Your task to perform on an android device: search for starred emails in the gmail app Image 0: 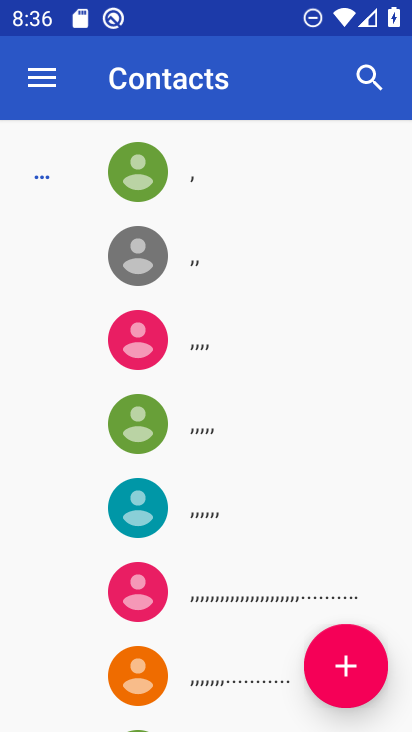
Step 0: press home button
Your task to perform on an android device: search for starred emails in the gmail app Image 1: 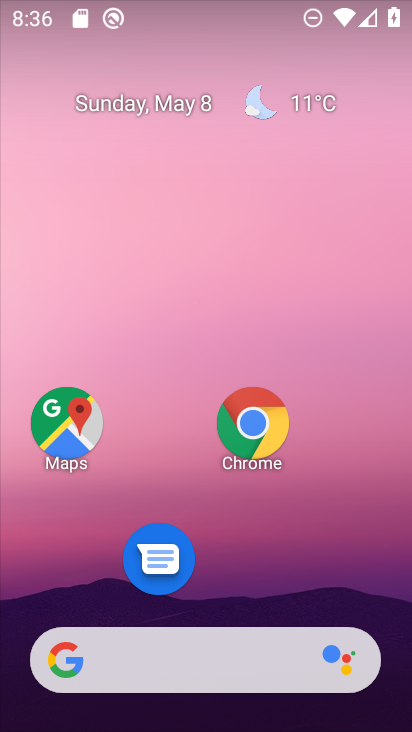
Step 1: drag from (360, 590) to (343, 6)
Your task to perform on an android device: search for starred emails in the gmail app Image 2: 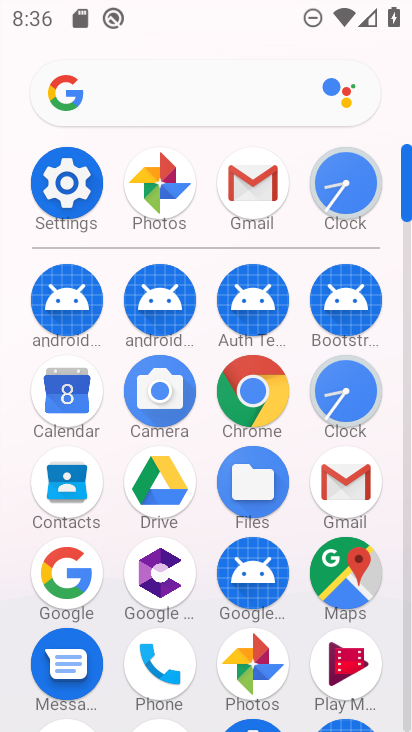
Step 2: click (247, 189)
Your task to perform on an android device: search for starred emails in the gmail app Image 3: 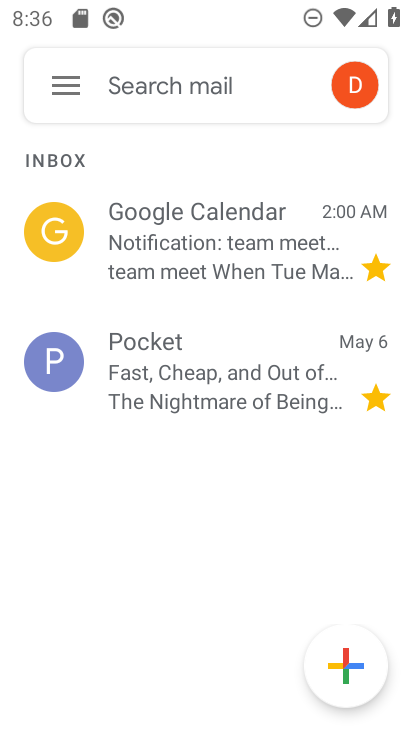
Step 3: click (52, 89)
Your task to perform on an android device: search for starred emails in the gmail app Image 4: 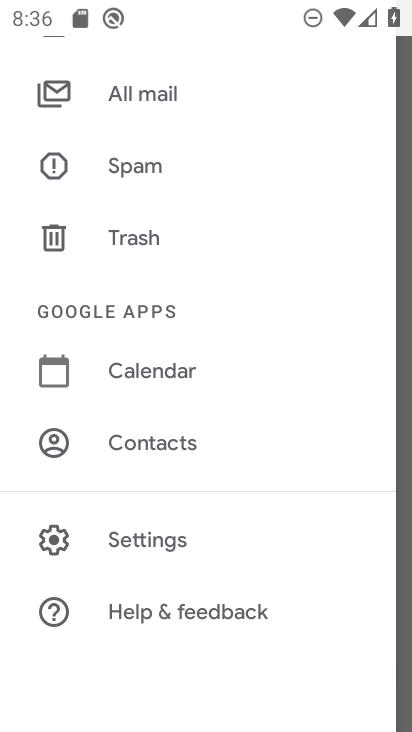
Step 4: drag from (165, 198) to (235, 608)
Your task to perform on an android device: search for starred emails in the gmail app Image 5: 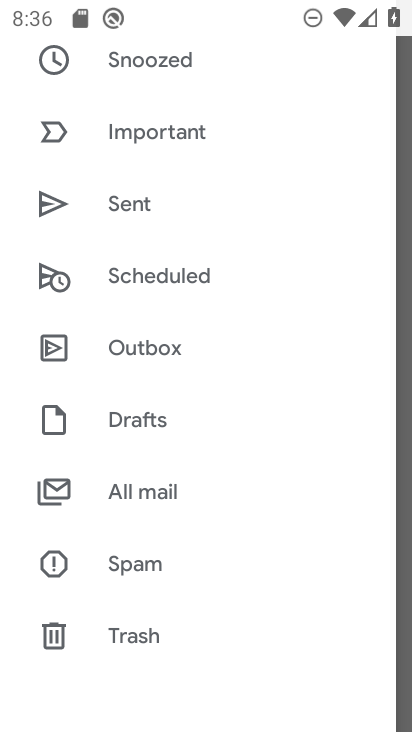
Step 5: drag from (267, 254) to (289, 532)
Your task to perform on an android device: search for starred emails in the gmail app Image 6: 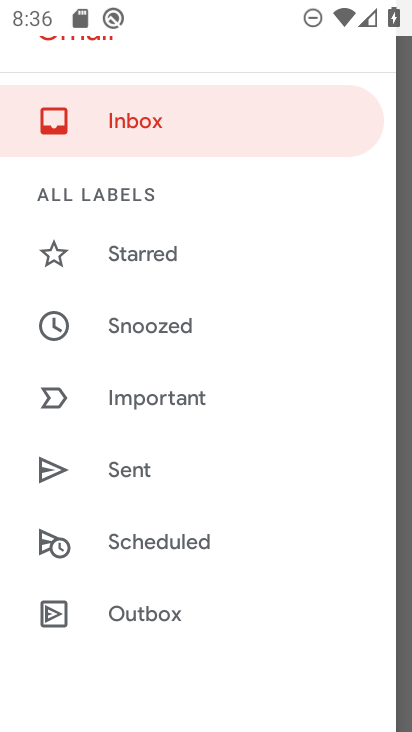
Step 6: click (154, 256)
Your task to perform on an android device: search for starred emails in the gmail app Image 7: 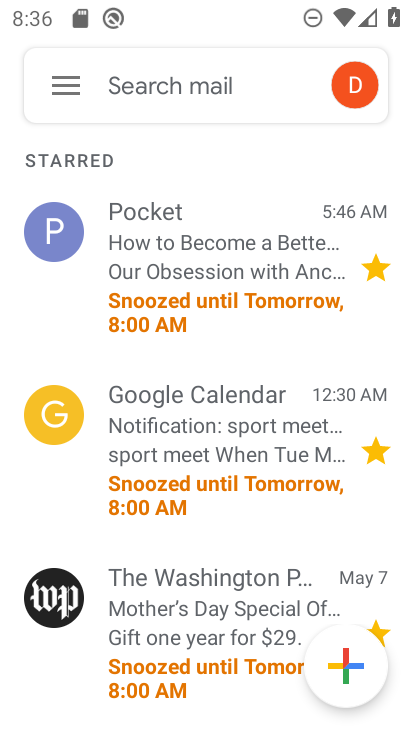
Step 7: task complete